Your task to perform on an android device: toggle improve location accuracy Image 0: 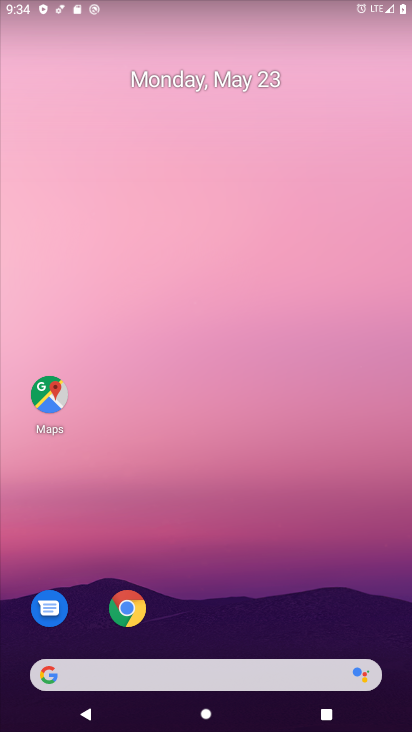
Step 0: drag from (242, 642) to (170, 260)
Your task to perform on an android device: toggle improve location accuracy Image 1: 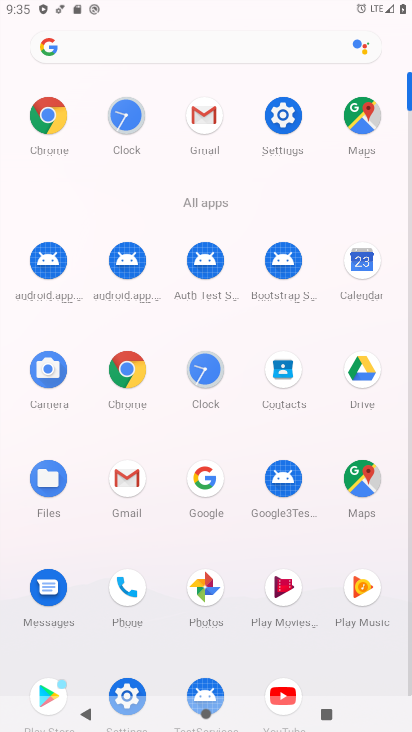
Step 1: click (287, 115)
Your task to perform on an android device: toggle improve location accuracy Image 2: 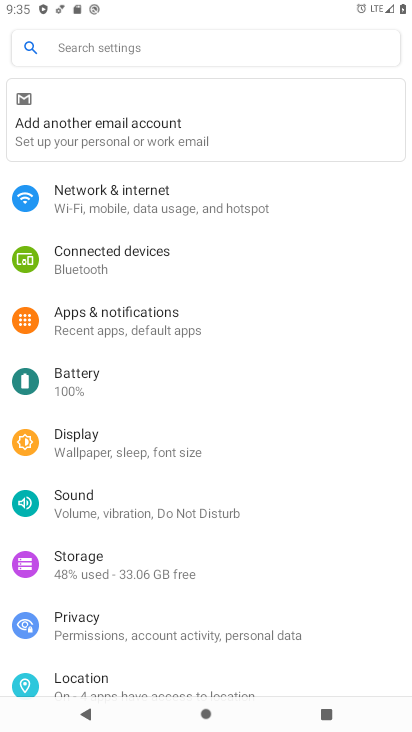
Step 2: click (148, 678)
Your task to perform on an android device: toggle improve location accuracy Image 3: 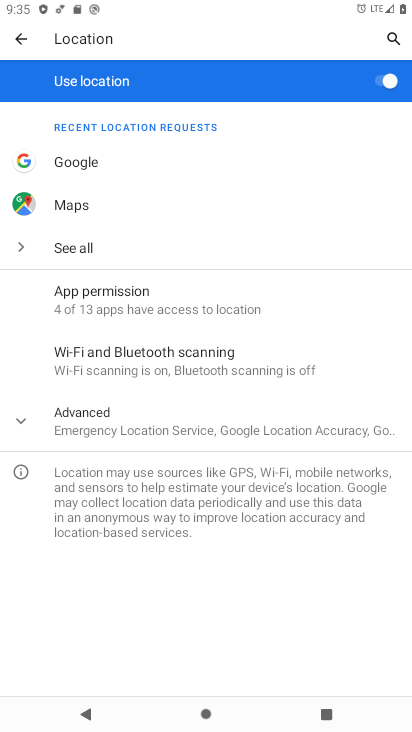
Step 3: click (215, 436)
Your task to perform on an android device: toggle improve location accuracy Image 4: 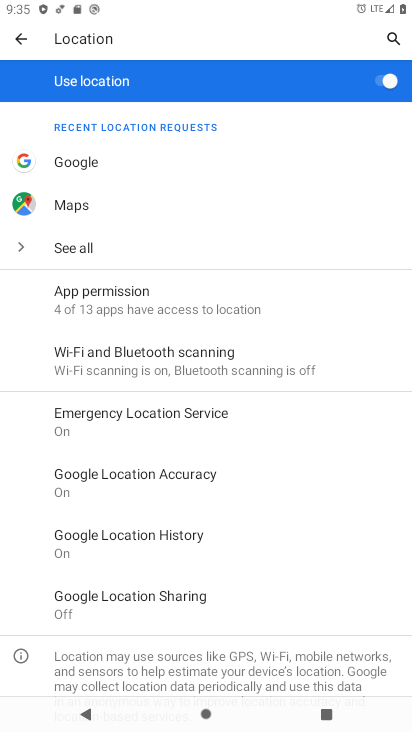
Step 4: click (218, 473)
Your task to perform on an android device: toggle improve location accuracy Image 5: 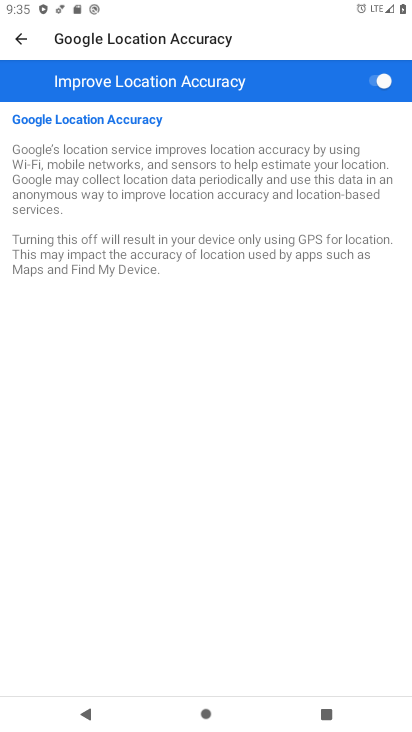
Step 5: click (384, 70)
Your task to perform on an android device: toggle improve location accuracy Image 6: 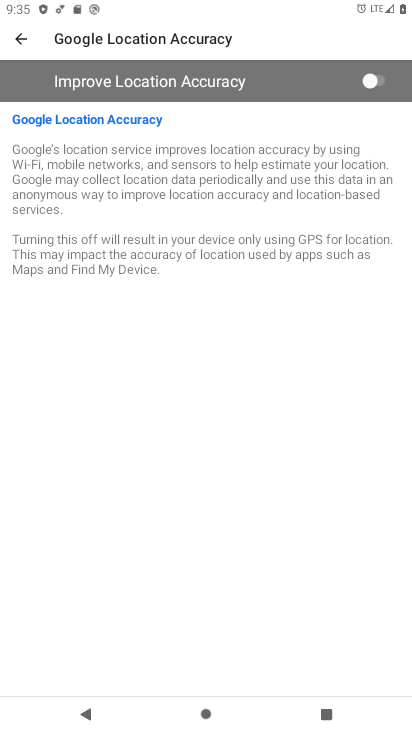
Step 6: task complete